Your task to perform on an android device: Search for Italian restaurants on Maps Image 0: 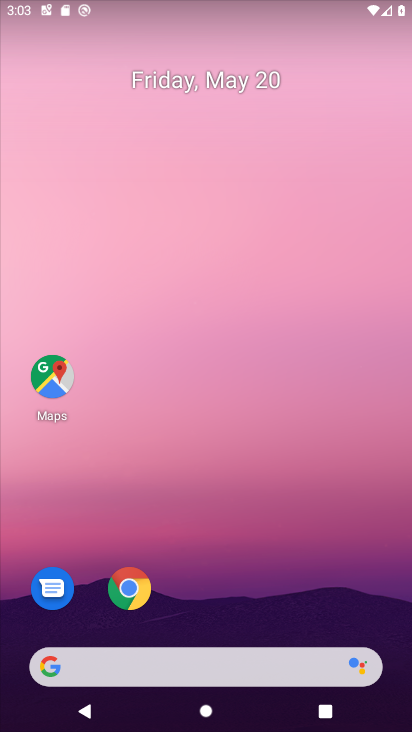
Step 0: click (60, 378)
Your task to perform on an android device: Search for Italian restaurants on Maps Image 1: 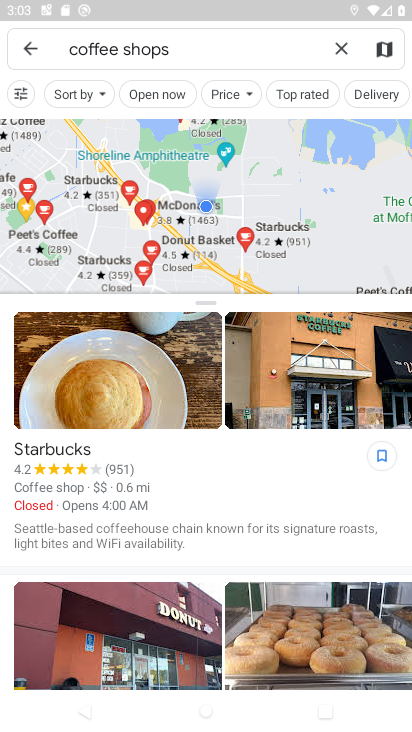
Step 1: click (218, 47)
Your task to perform on an android device: Search for Italian restaurants on Maps Image 2: 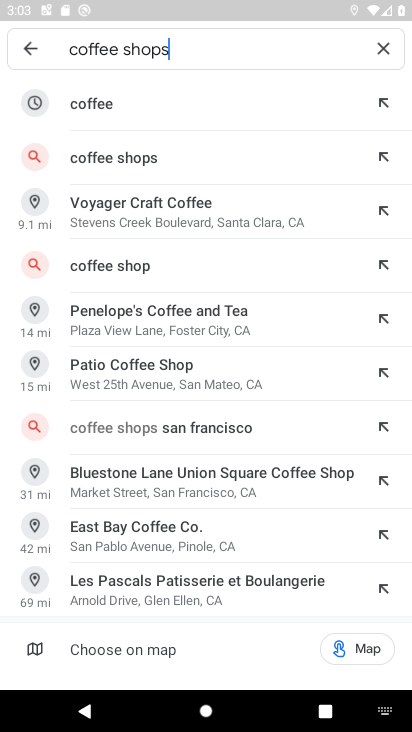
Step 2: click (380, 46)
Your task to perform on an android device: Search for Italian restaurants on Maps Image 3: 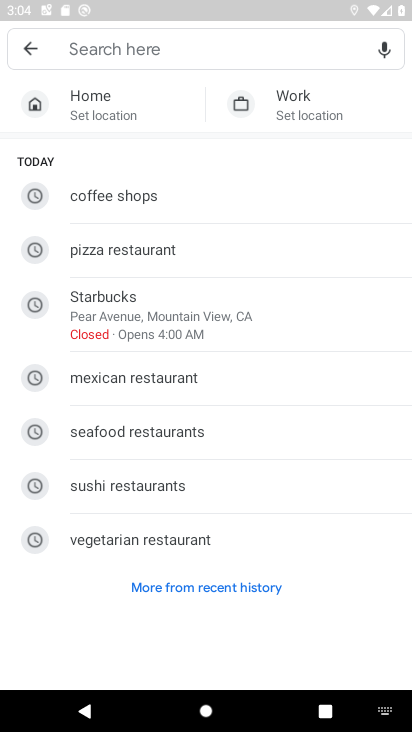
Step 3: type "Italian restaurants"
Your task to perform on an android device: Search for Italian restaurants on Maps Image 4: 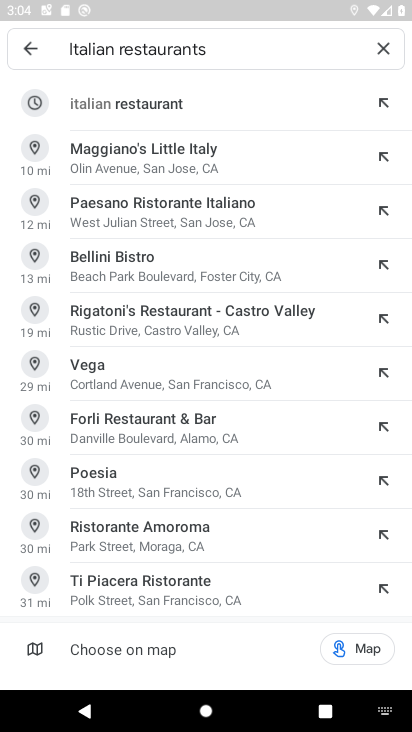
Step 4: press enter
Your task to perform on an android device: Search for Italian restaurants on Maps Image 5: 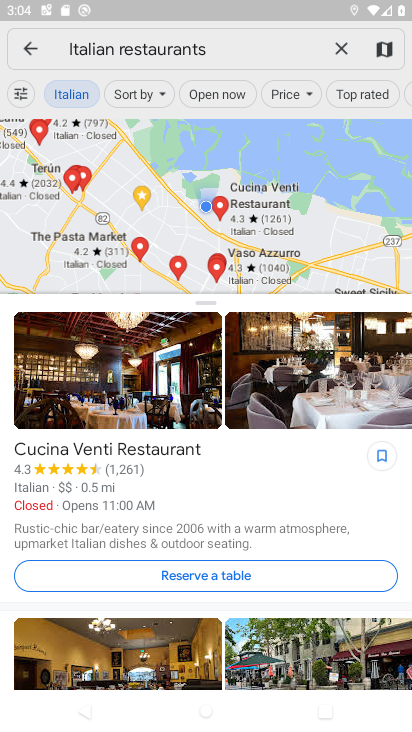
Step 5: task complete